Your task to perform on an android device: allow cookies in the chrome app Image 0: 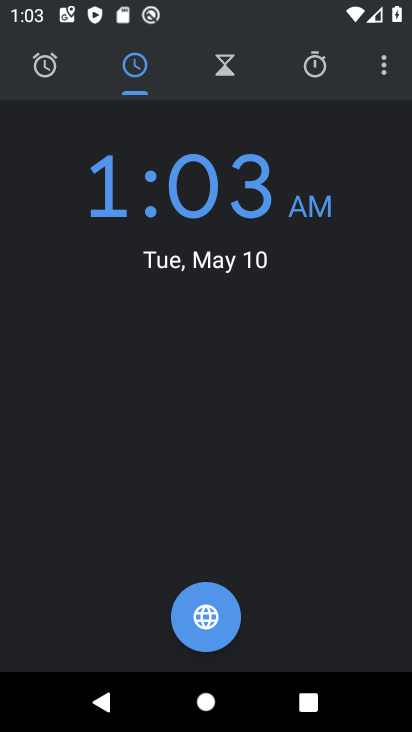
Step 0: press home button
Your task to perform on an android device: allow cookies in the chrome app Image 1: 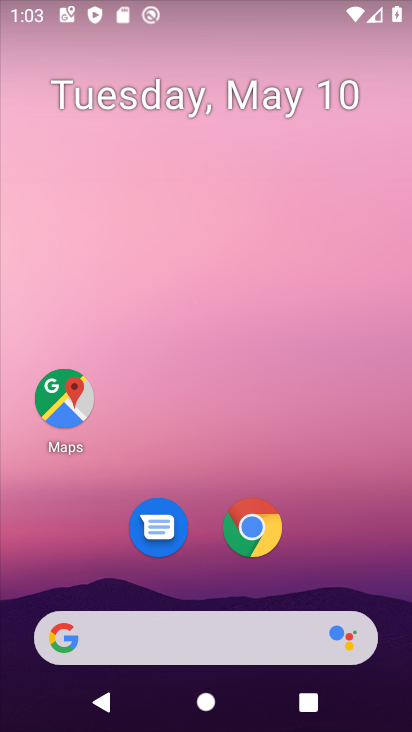
Step 1: click (249, 534)
Your task to perform on an android device: allow cookies in the chrome app Image 2: 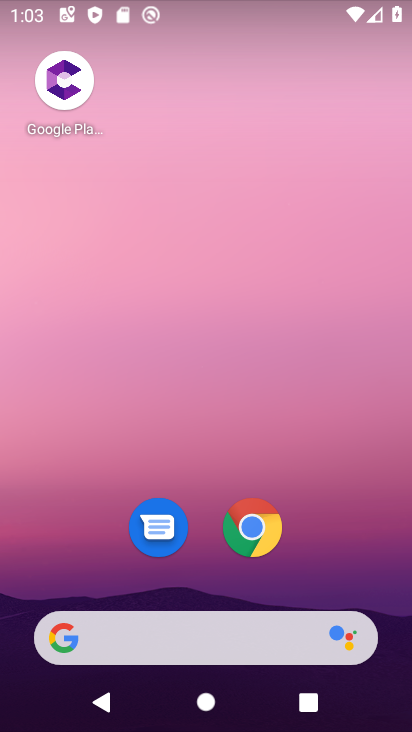
Step 2: click (249, 521)
Your task to perform on an android device: allow cookies in the chrome app Image 3: 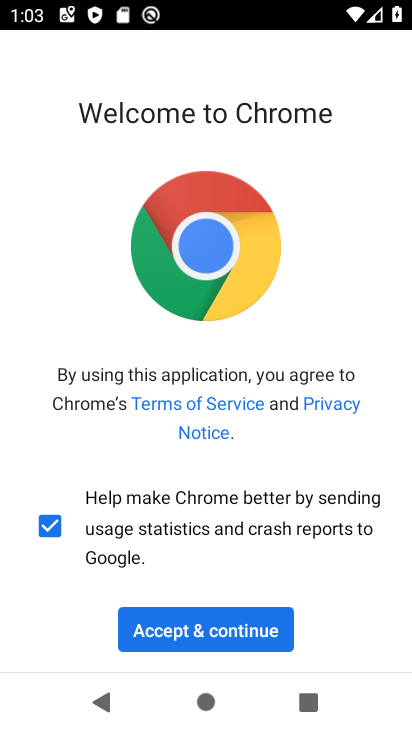
Step 3: click (211, 627)
Your task to perform on an android device: allow cookies in the chrome app Image 4: 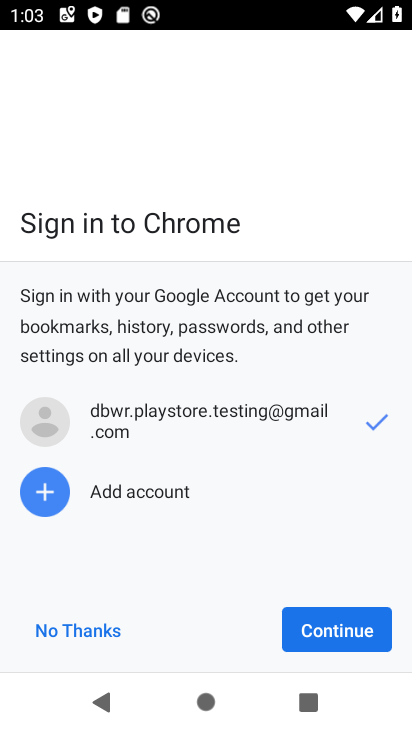
Step 4: click (329, 637)
Your task to perform on an android device: allow cookies in the chrome app Image 5: 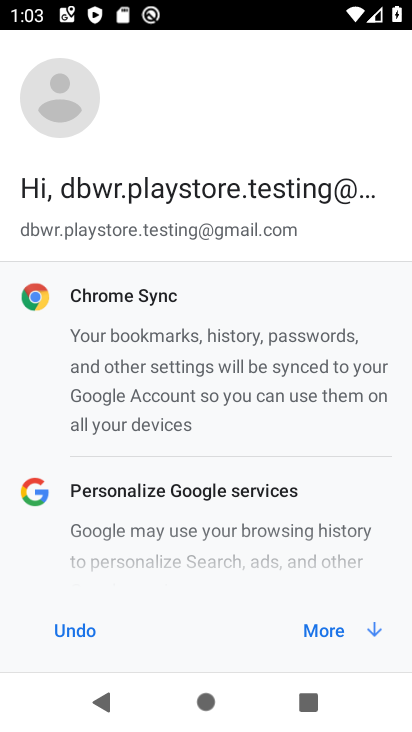
Step 5: click (325, 632)
Your task to perform on an android device: allow cookies in the chrome app Image 6: 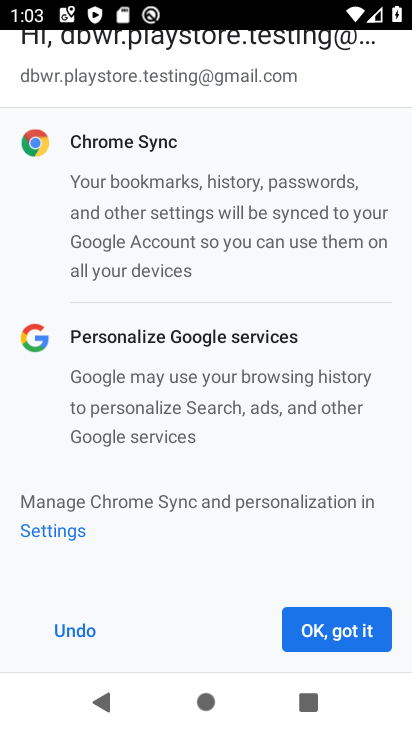
Step 6: click (323, 630)
Your task to perform on an android device: allow cookies in the chrome app Image 7: 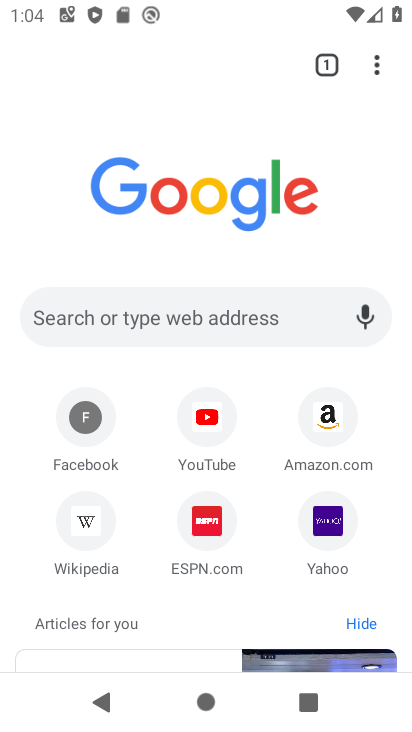
Step 7: click (373, 63)
Your task to perform on an android device: allow cookies in the chrome app Image 8: 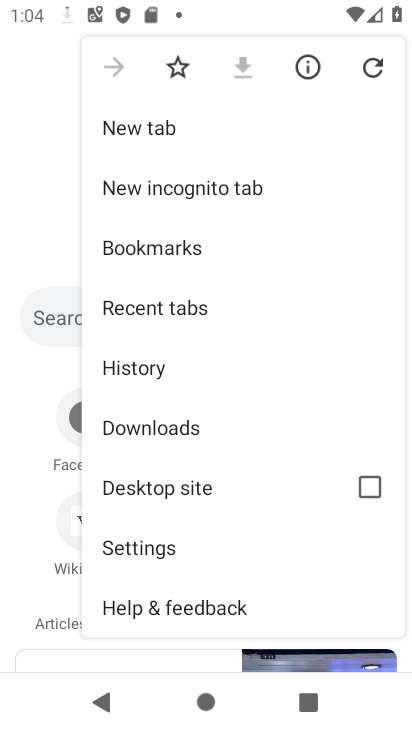
Step 8: click (160, 551)
Your task to perform on an android device: allow cookies in the chrome app Image 9: 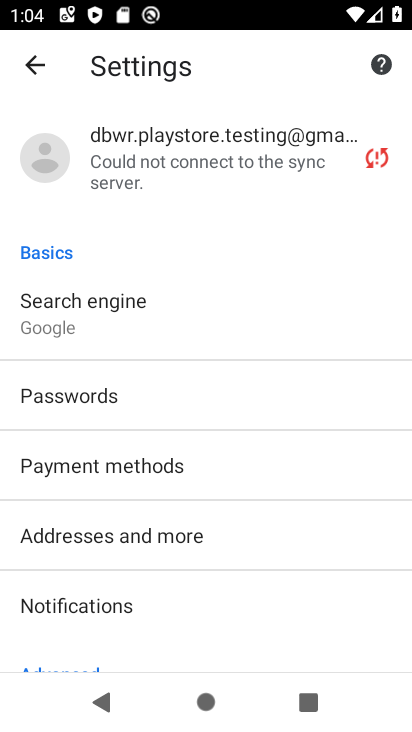
Step 9: drag from (158, 587) to (246, 145)
Your task to perform on an android device: allow cookies in the chrome app Image 10: 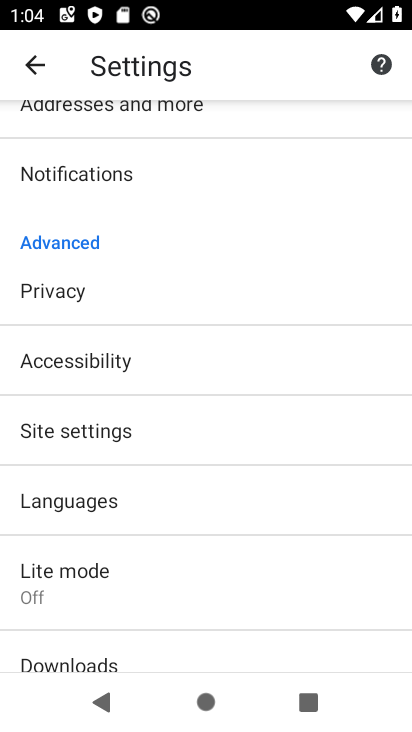
Step 10: click (79, 422)
Your task to perform on an android device: allow cookies in the chrome app Image 11: 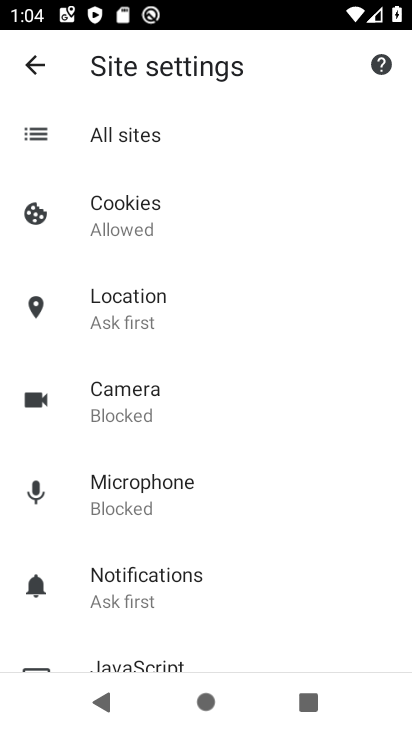
Step 11: click (132, 228)
Your task to perform on an android device: allow cookies in the chrome app Image 12: 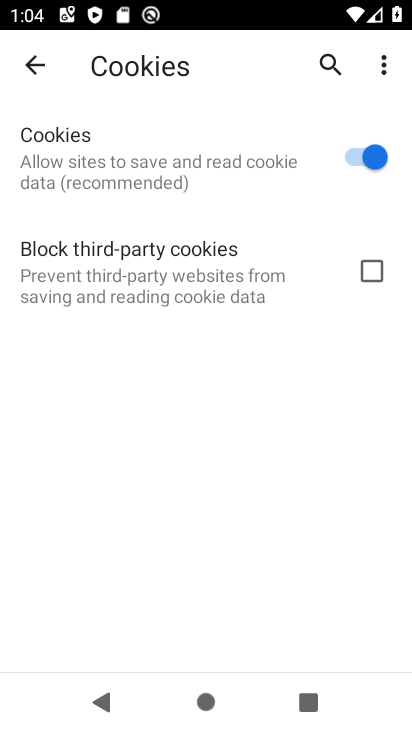
Step 12: task complete